Your task to perform on an android device: Show me recent news Image 0: 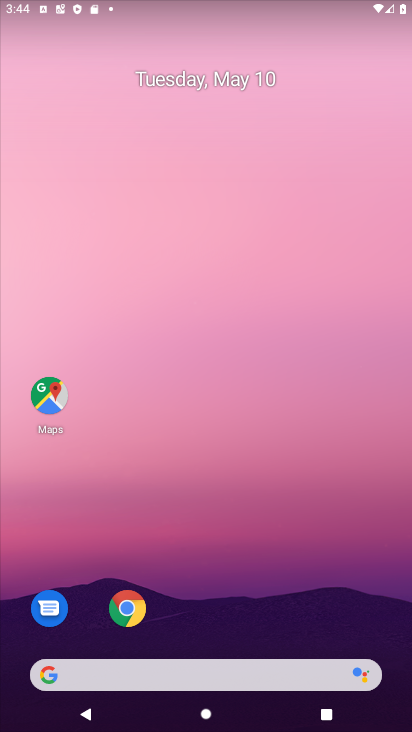
Step 0: drag from (12, 272) to (407, 223)
Your task to perform on an android device: Show me recent news Image 1: 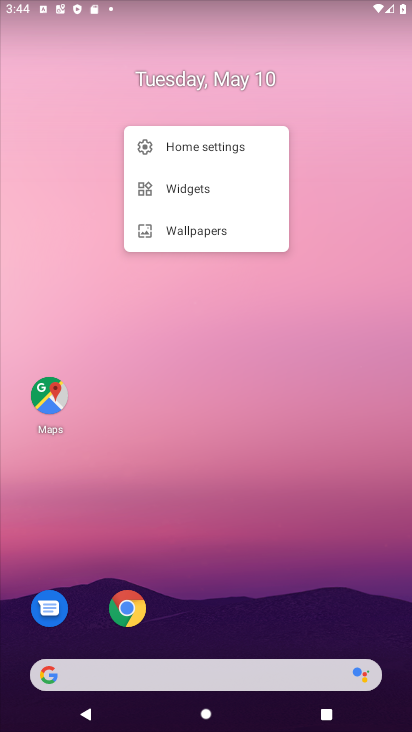
Step 1: task complete